Your task to perform on an android device: change your default location settings in chrome Image 0: 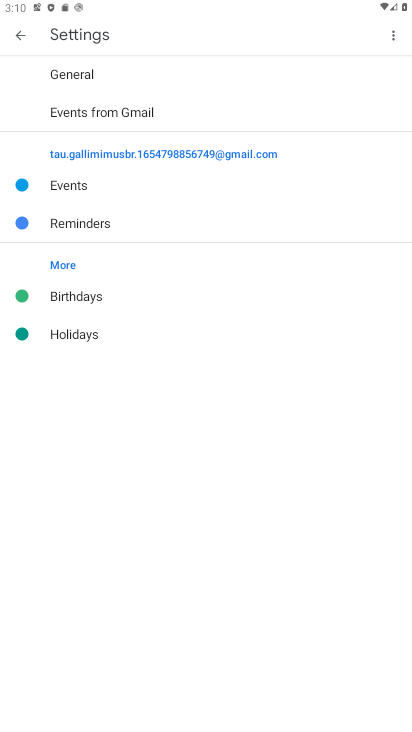
Step 0: press home button
Your task to perform on an android device: change your default location settings in chrome Image 1: 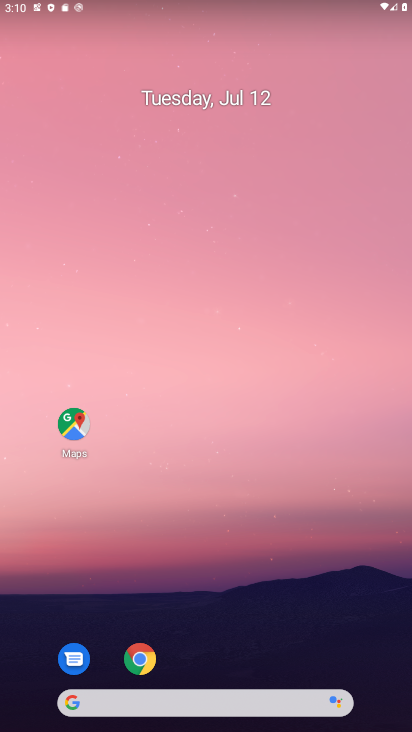
Step 1: click (221, 709)
Your task to perform on an android device: change your default location settings in chrome Image 2: 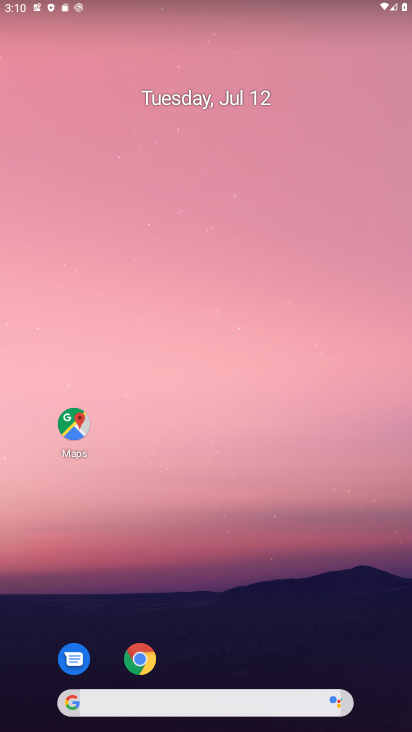
Step 2: drag from (223, 267) to (223, 124)
Your task to perform on an android device: change your default location settings in chrome Image 3: 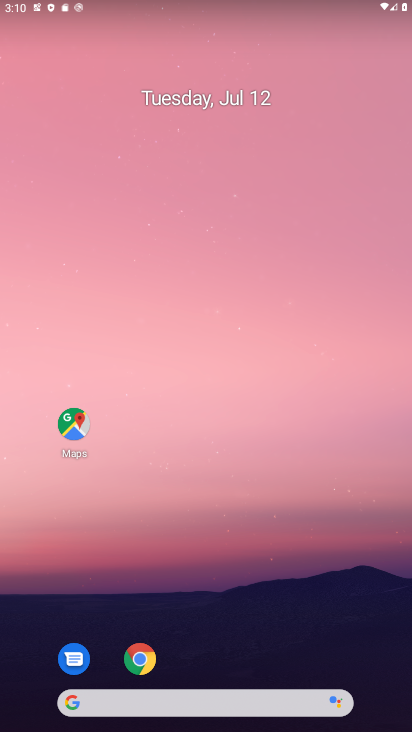
Step 3: drag from (227, 722) to (227, 688)
Your task to perform on an android device: change your default location settings in chrome Image 4: 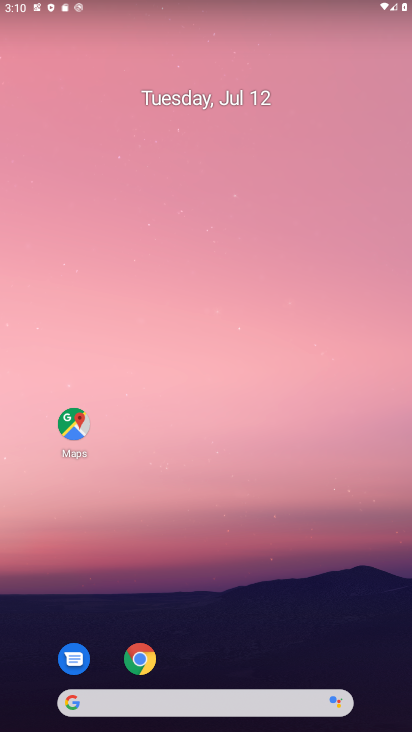
Step 4: drag from (227, 241) to (225, 40)
Your task to perform on an android device: change your default location settings in chrome Image 5: 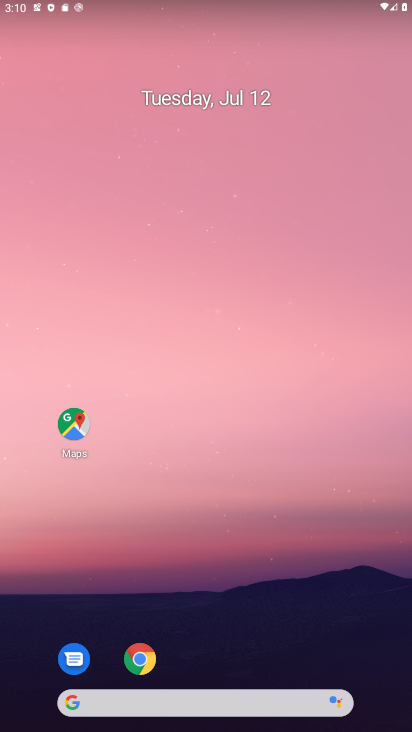
Step 5: click (141, 663)
Your task to perform on an android device: change your default location settings in chrome Image 6: 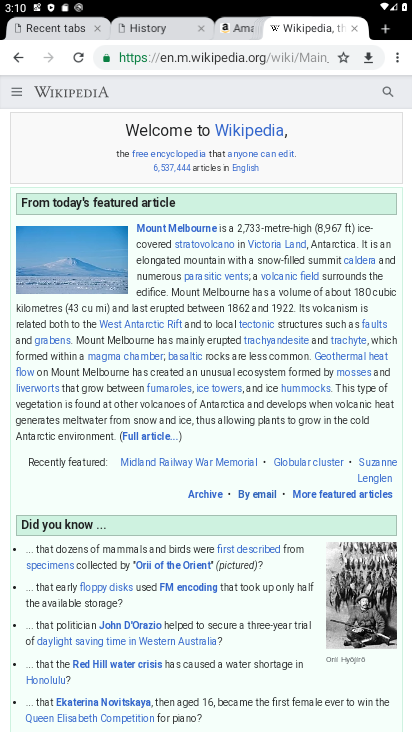
Step 6: click (398, 61)
Your task to perform on an android device: change your default location settings in chrome Image 7: 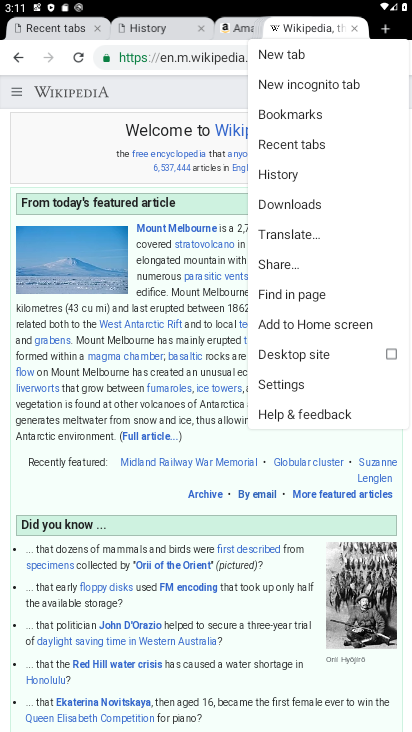
Step 7: click (281, 378)
Your task to perform on an android device: change your default location settings in chrome Image 8: 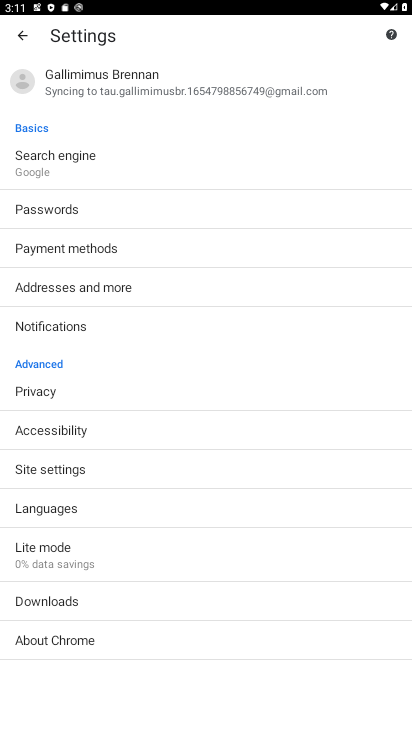
Step 8: click (50, 470)
Your task to perform on an android device: change your default location settings in chrome Image 9: 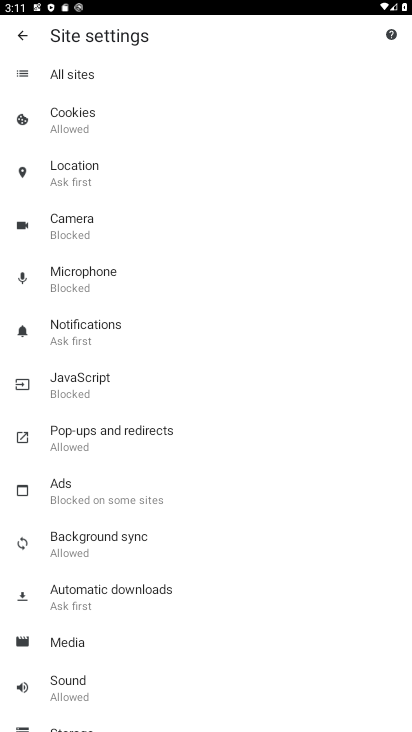
Step 9: click (64, 174)
Your task to perform on an android device: change your default location settings in chrome Image 10: 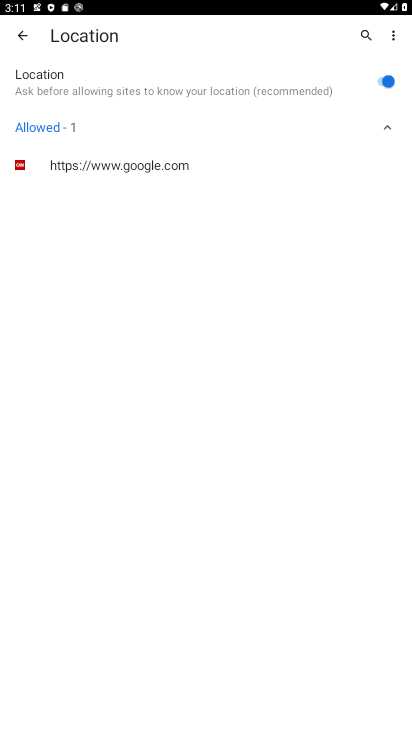
Step 10: click (381, 75)
Your task to perform on an android device: change your default location settings in chrome Image 11: 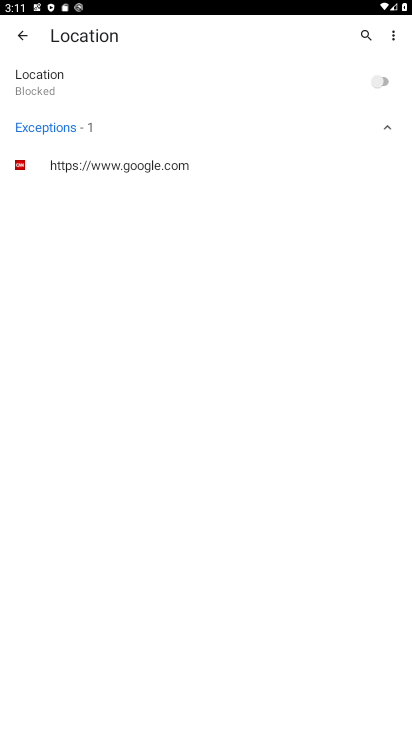
Step 11: task complete